Your task to perform on an android device: turn notification dots on Image 0: 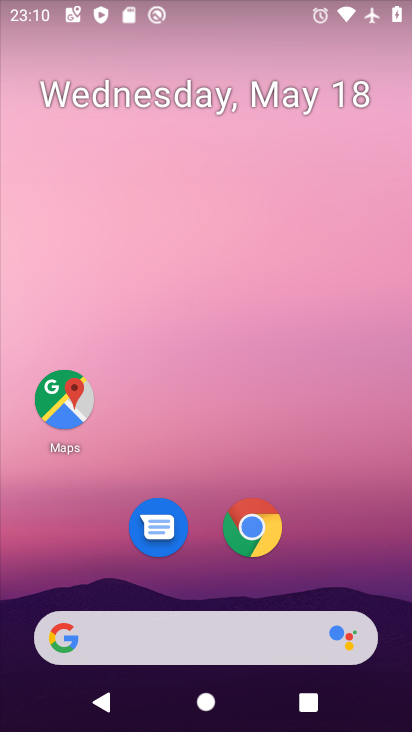
Step 0: drag from (349, 553) to (276, 132)
Your task to perform on an android device: turn notification dots on Image 1: 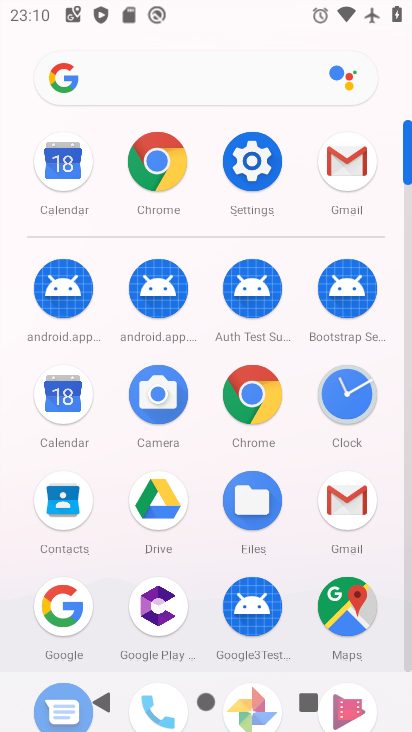
Step 1: click (255, 199)
Your task to perform on an android device: turn notification dots on Image 2: 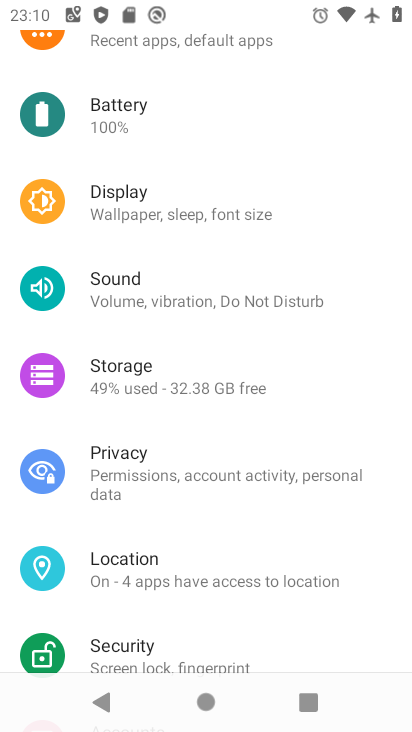
Step 2: drag from (175, 137) to (185, 584)
Your task to perform on an android device: turn notification dots on Image 3: 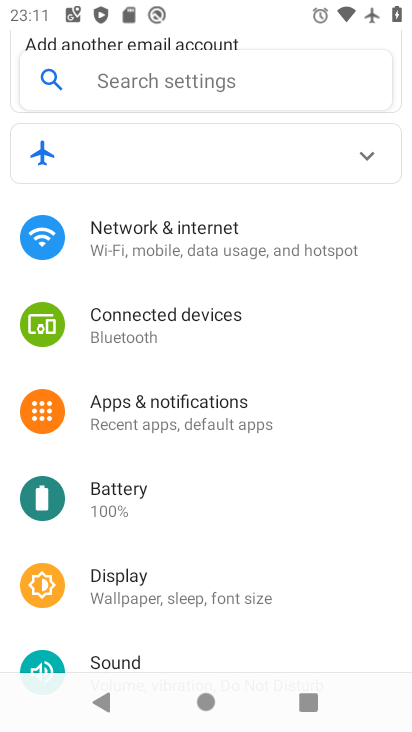
Step 3: click (208, 420)
Your task to perform on an android device: turn notification dots on Image 4: 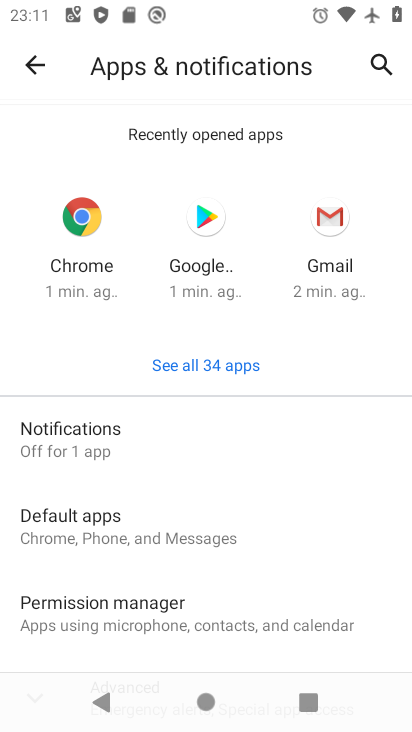
Step 4: click (200, 435)
Your task to perform on an android device: turn notification dots on Image 5: 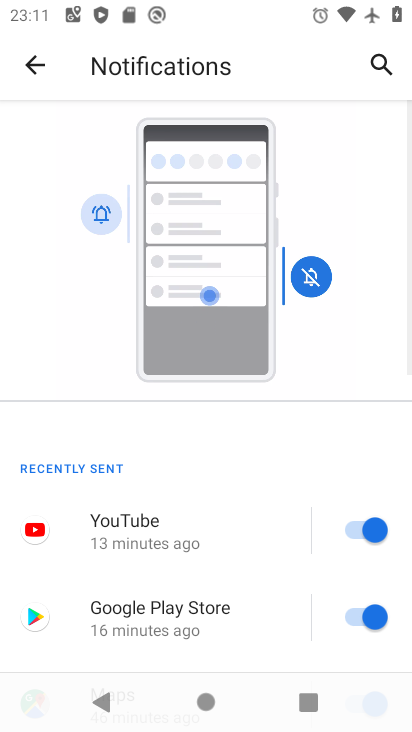
Step 5: drag from (272, 500) to (232, 105)
Your task to perform on an android device: turn notification dots on Image 6: 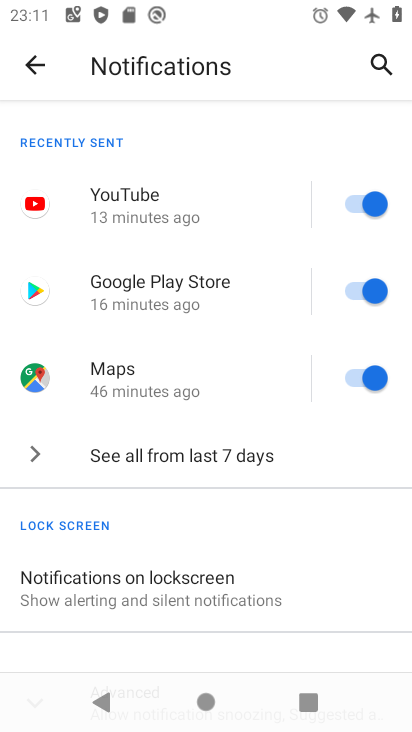
Step 6: drag from (226, 566) to (213, 288)
Your task to perform on an android device: turn notification dots on Image 7: 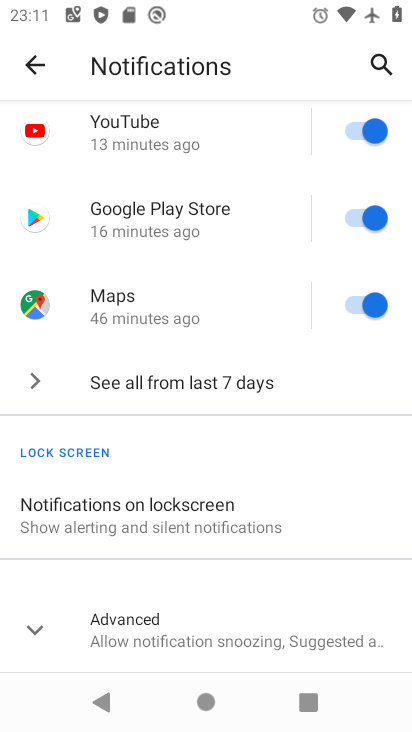
Step 7: click (164, 606)
Your task to perform on an android device: turn notification dots on Image 8: 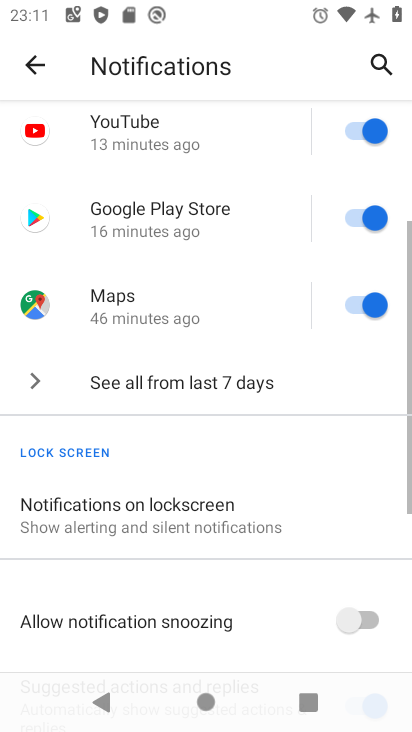
Step 8: task complete